Your task to perform on an android device: Go to privacy settings Image 0: 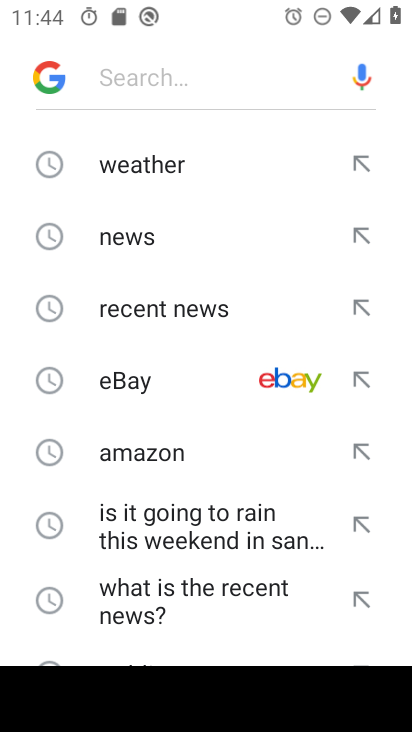
Step 0: press back button
Your task to perform on an android device: Go to privacy settings Image 1: 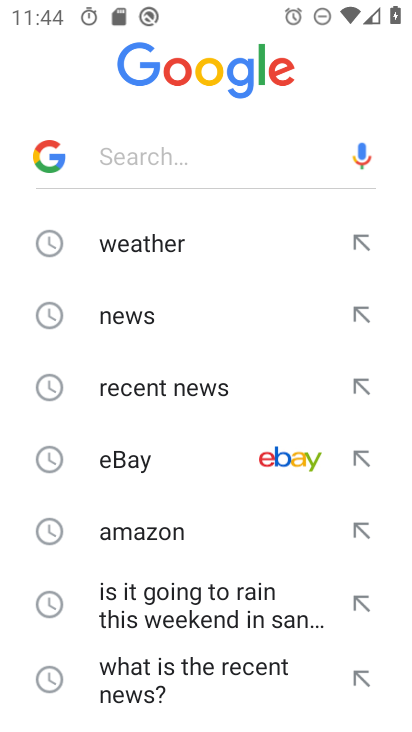
Step 1: press back button
Your task to perform on an android device: Go to privacy settings Image 2: 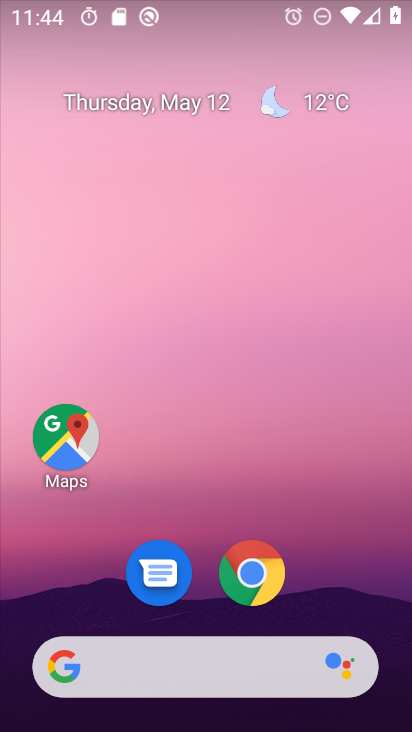
Step 2: click (308, 565)
Your task to perform on an android device: Go to privacy settings Image 3: 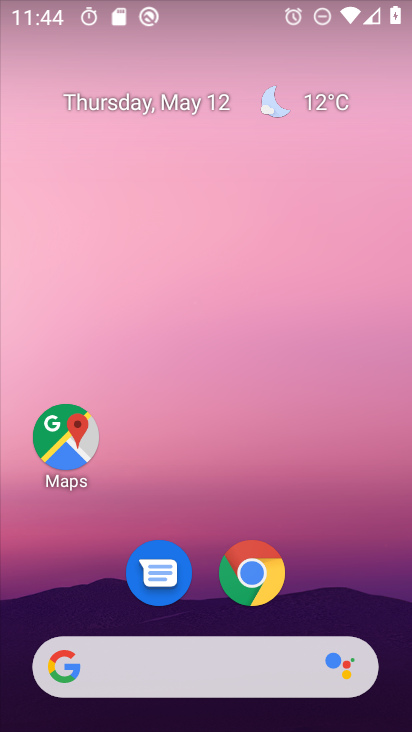
Step 3: click (253, 570)
Your task to perform on an android device: Go to privacy settings Image 4: 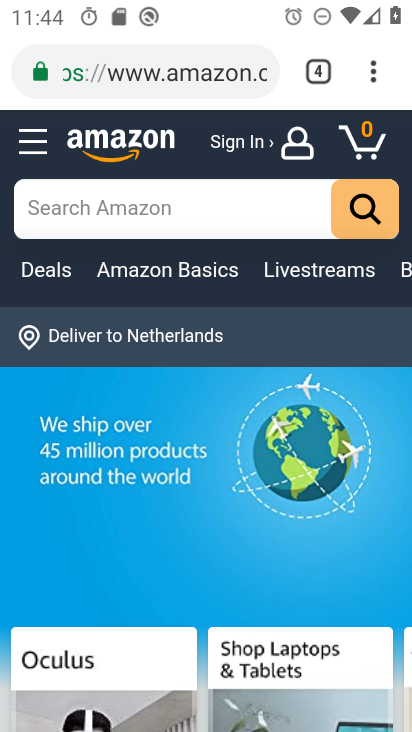
Step 4: click (375, 67)
Your task to perform on an android device: Go to privacy settings Image 5: 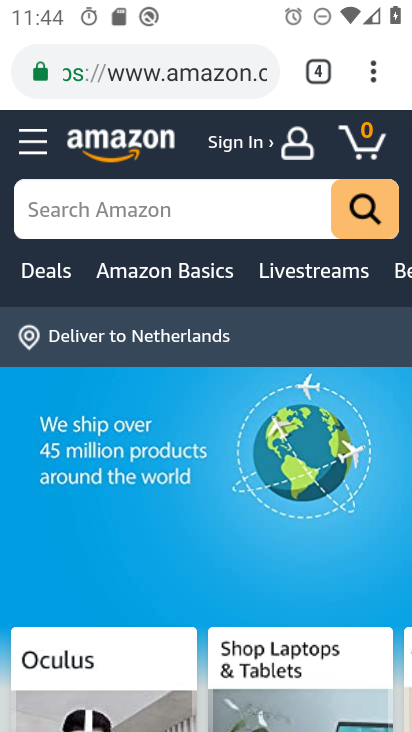
Step 5: click (371, 63)
Your task to perform on an android device: Go to privacy settings Image 6: 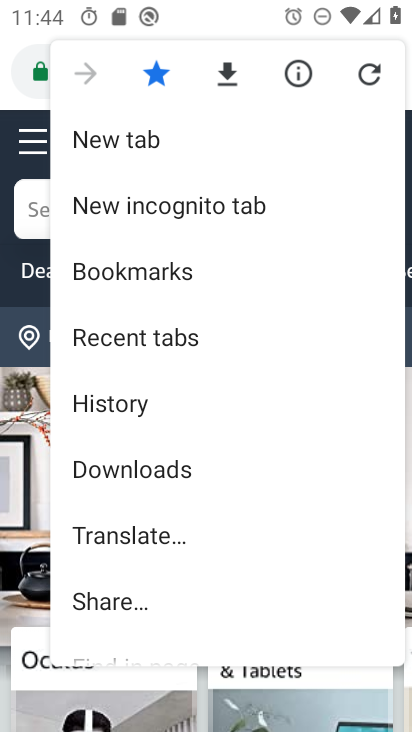
Step 6: drag from (268, 599) to (274, 391)
Your task to perform on an android device: Go to privacy settings Image 7: 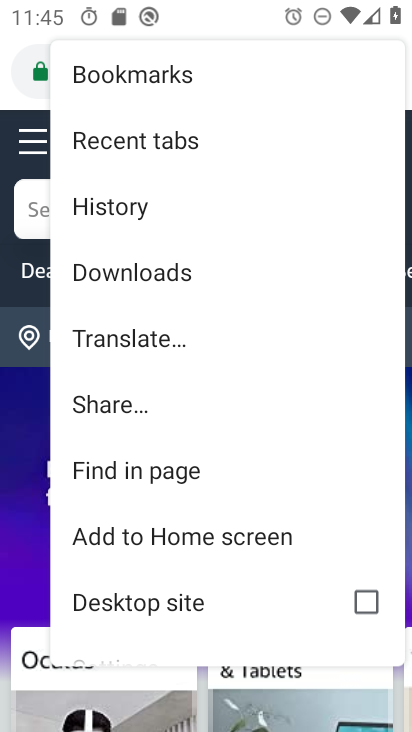
Step 7: drag from (327, 549) to (309, 317)
Your task to perform on an android device: Go to privacy settings Image 8: 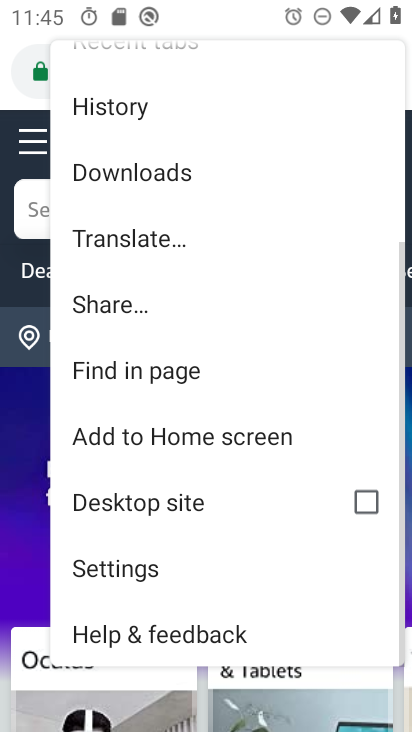
Step 8: click (126, 562)
Your task to perform on an android device: Go to privacy settings Image 9: 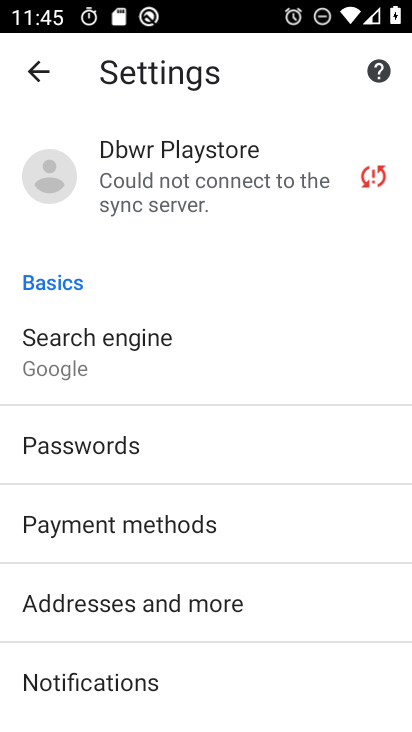
Step 9: drag from (263, 635) to (263, 314)
Your task to perform on an android device: Go to privacy settings Image 10: 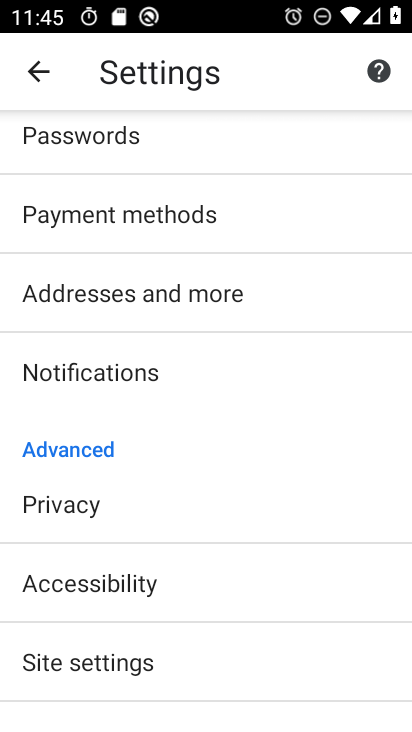
Step 10: click (57, 495)
Your task to perform on an android device: Go to privacy settings Image 11: 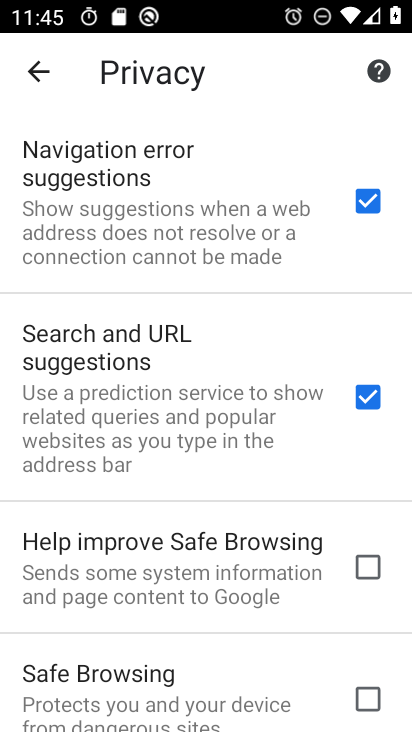
Step 11: task complete